Your task to perform on an android device: Open display settings Image 0: 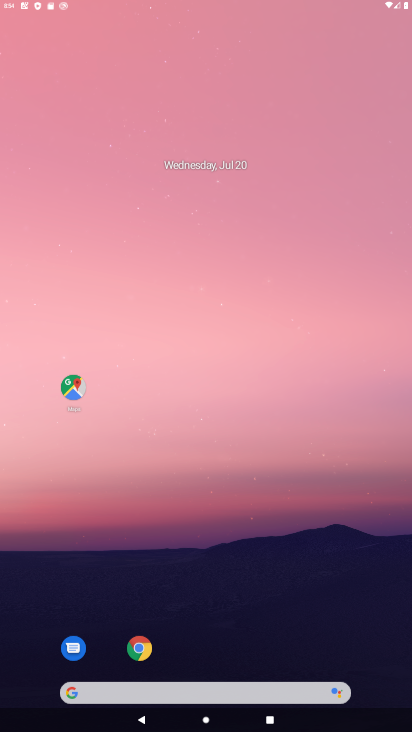
Step 0: drag from (280, 187) to (288, 124)
Your task to perform on an android device: Open display settings Image 1: 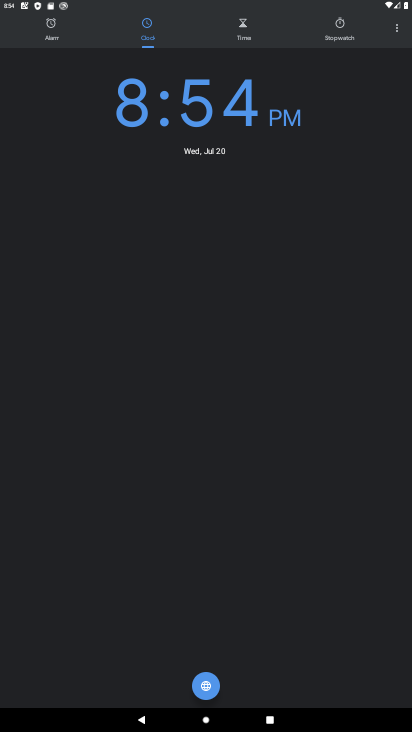
Step 1: press home button
Your task to perform on an android device: Open display settings Image 2: 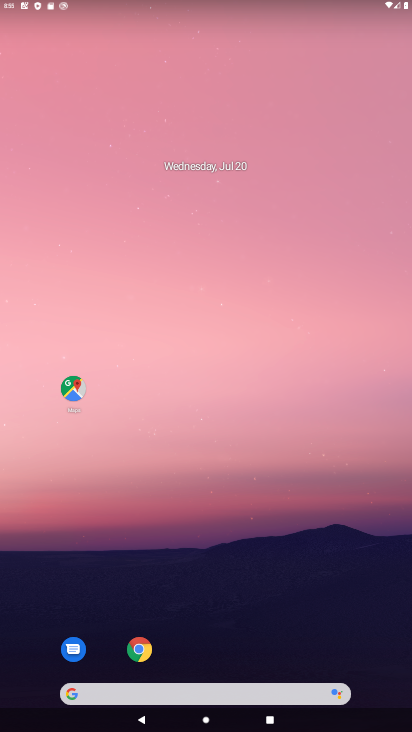
Step 2: click (182, 688)
Your task to perform on an android device: Open display settings Image 3: 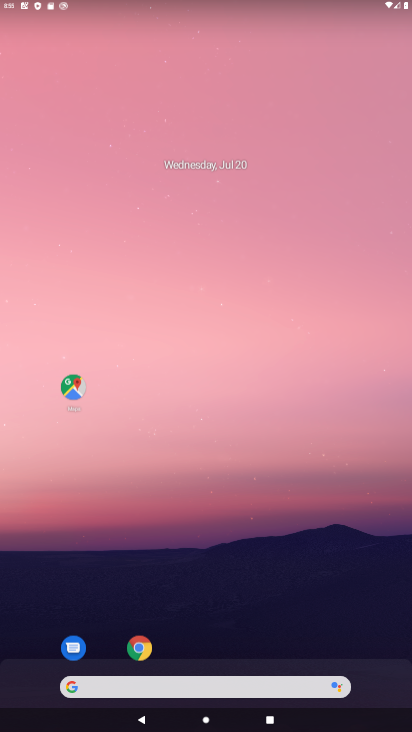
Step 3: drag from (192, 677) to (341, 78)
Your task to perform on an android device: Open display settings Image 4: 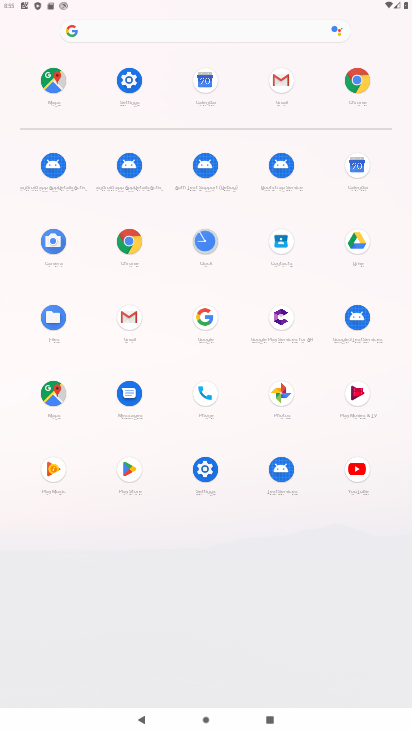
Step 4: click (127, 101)
Your task to perform on an android device: Open display settings Image 5: 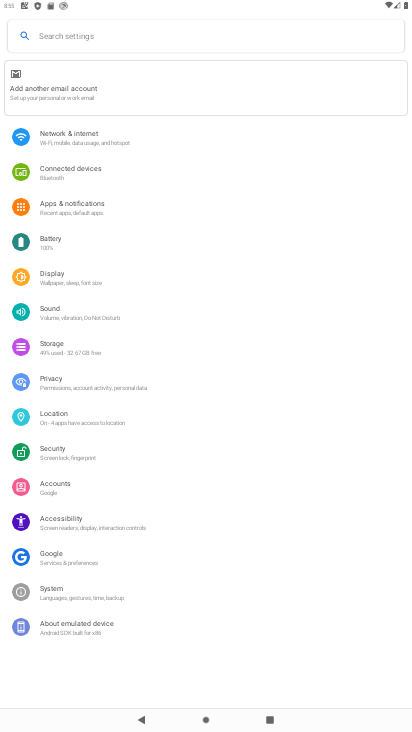
Step 5: task complete